Your task to perform on an android device: What's on my calendar today? Image 0: 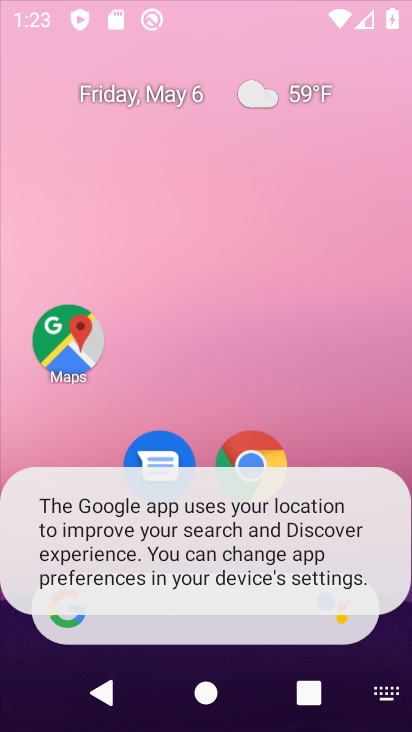
Step 0: drag from (211, 122) to (205, 559)
Your task to perform on an android device: What's on my calendar today? Image 1: 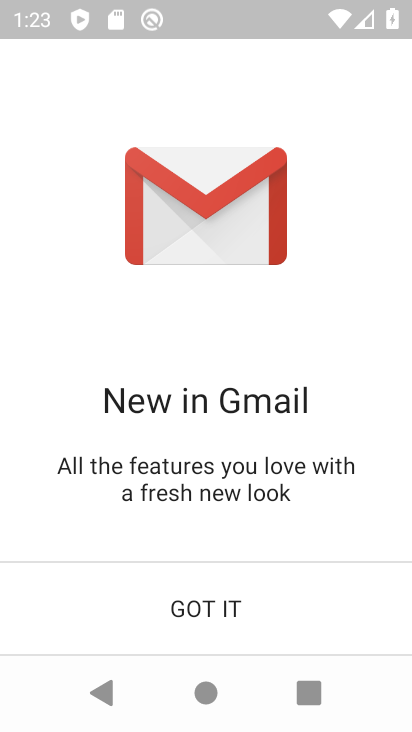
Step 1: press home button
Your task to perform on an android device: What's on my calendar today? Image 2: 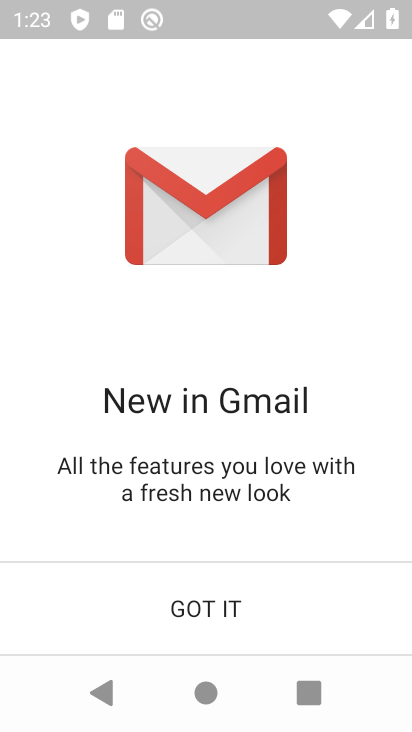
Step 2: press home button
Your task to perform on an android device: What's on my calendar today? Image 3: 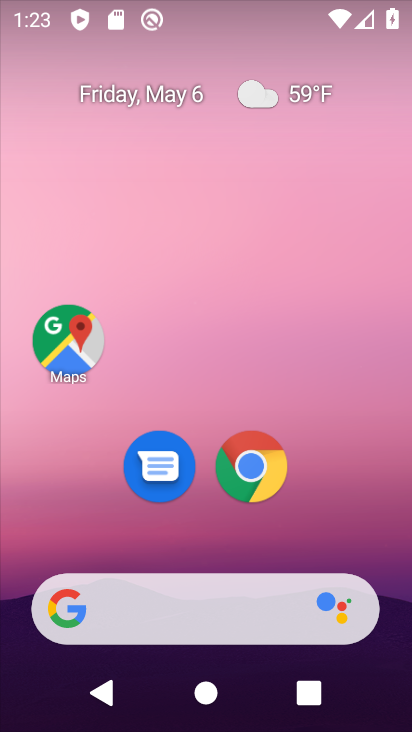
Step 3: drag from (194, 552) to (202, 41)
Your task to perform on an android device: What's on my calendar today? Image 4: 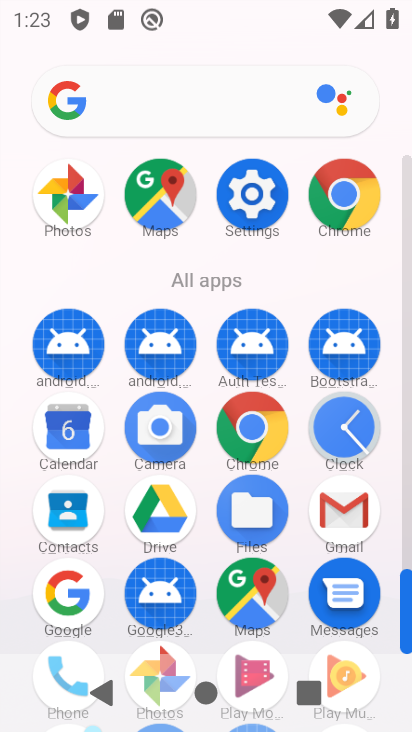
Step 4: click (66, 423)
Your task to perform on an android device: What's on my calendar today? Image 5: 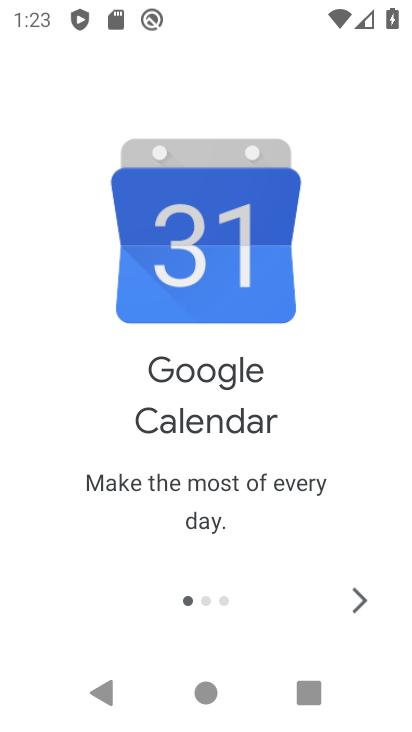
Step 5: click (351, 594)
Your task to perform on an android device: What's on my calendar today? Image 6: 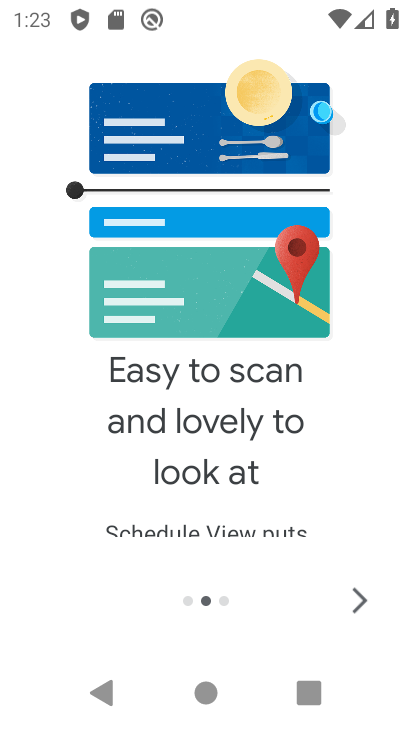
Step 6: click (351, 594)
Your task to perform on an android device: What's on my calendar today? Image 7: 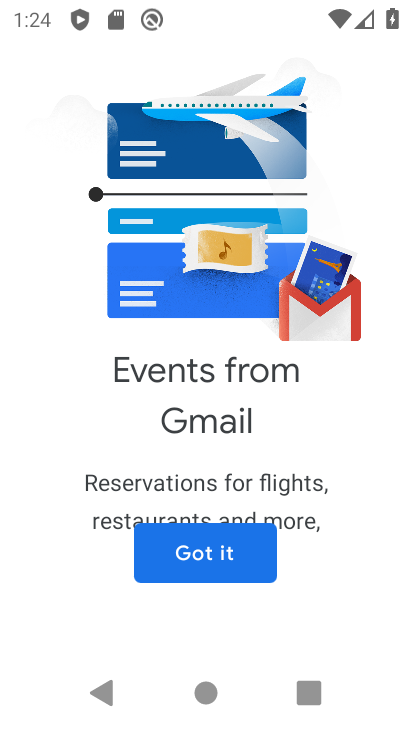
Step 7: click (210, 561)
Your task to perform on an android device: What's on my calendar today? Image 8: 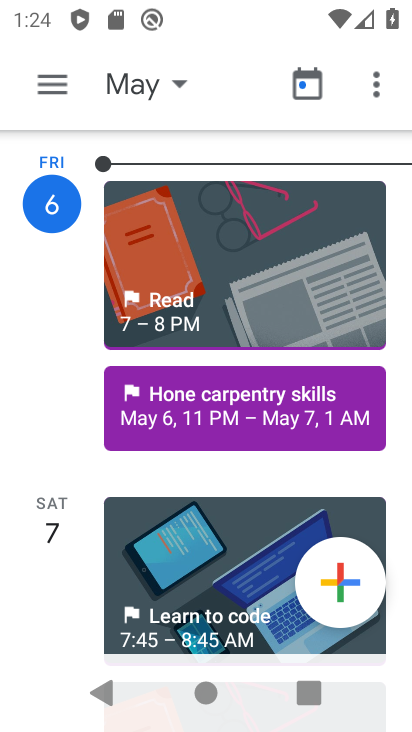
Step 8: click (72, 602)
Your task to perform on an android device: What's on my calendar today? Image 9: 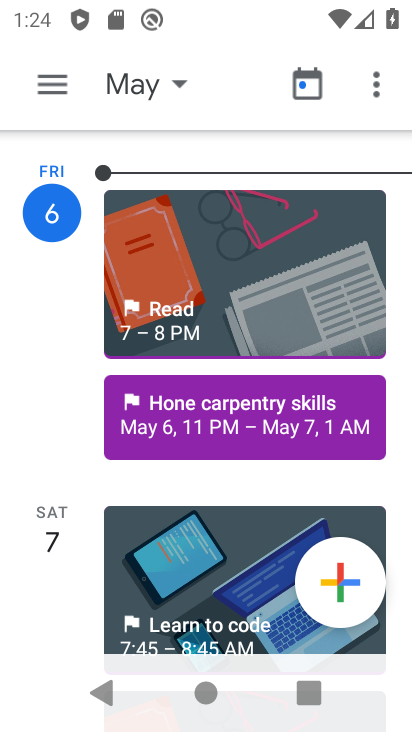
Step 9: click (69, 304)
Your task to perform on an android device: What's on my calendar today? Image 10: 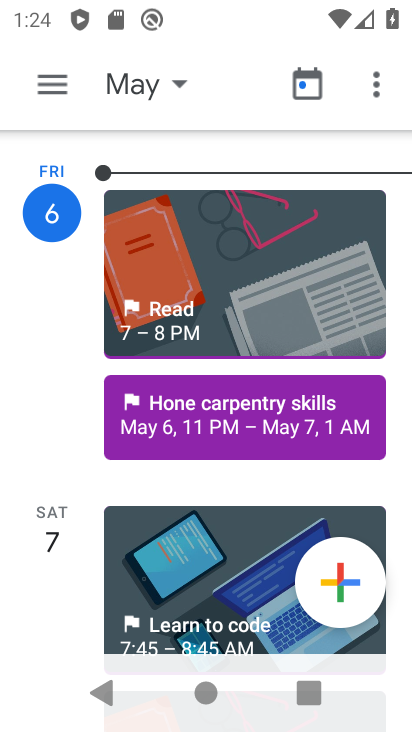
Step 10: click (72, 270)
Your task to perform on an android device: What's on my calendar today? Image 11: 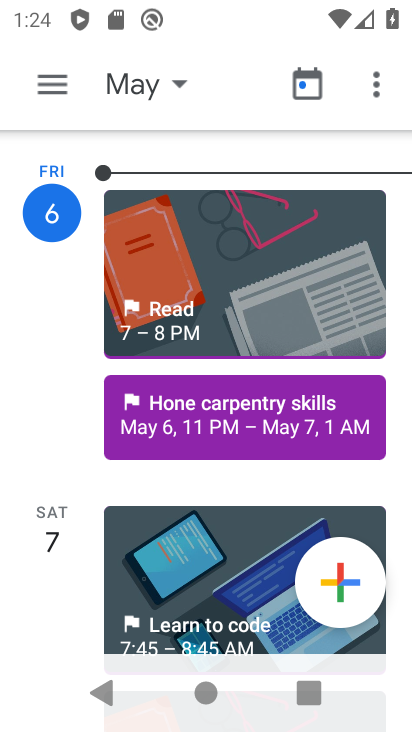
Step 11: click (63, 233)
Your task to perform on an android device: What's on my calendar today? Image 12: 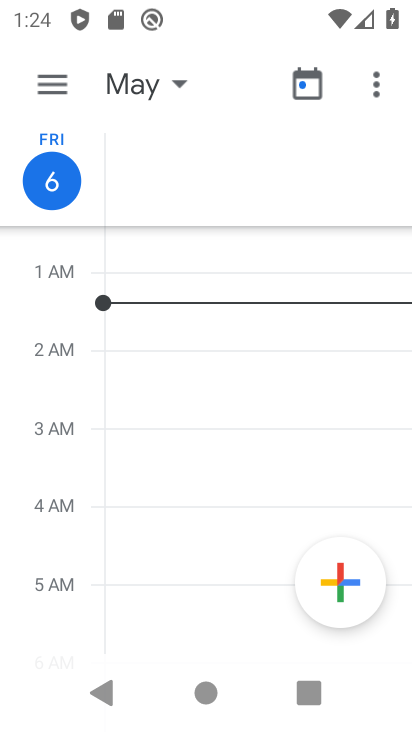
Step 12: task complete